Your task to perform on an android device: Clear the shopping cart on newegg.com. Search for "alienware area 51" on newegg.com, select the first entry, and add it to the cart. Image 0: 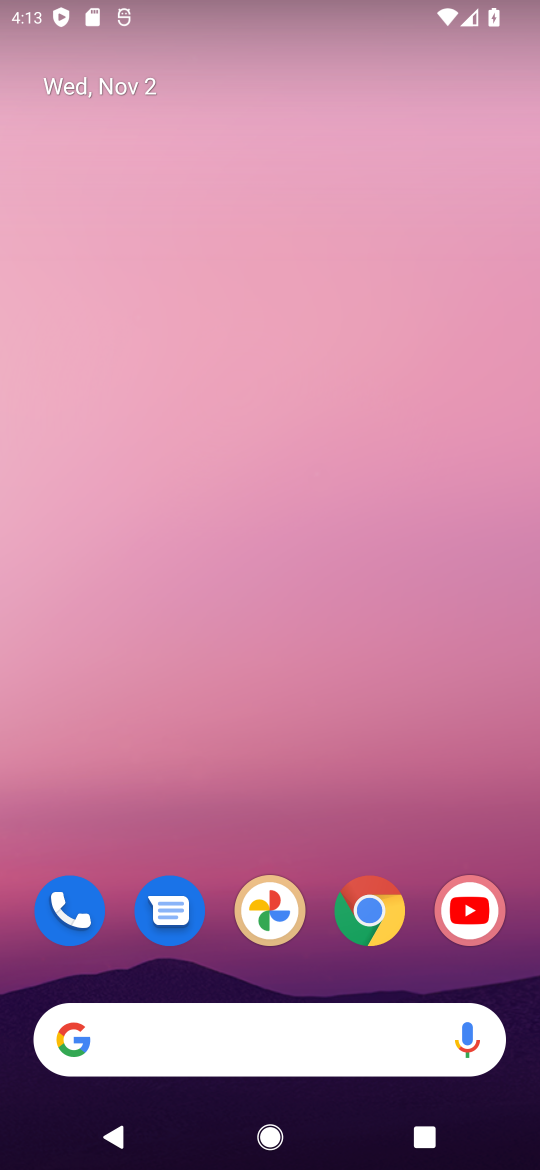
Step 0: click (374, 911)
Your task to perform on an android device: Clear the shopping cart on newegg.com. Search for "alienware area 51" on newegg.com, select the first entry, and add it to the cart. Image 1: 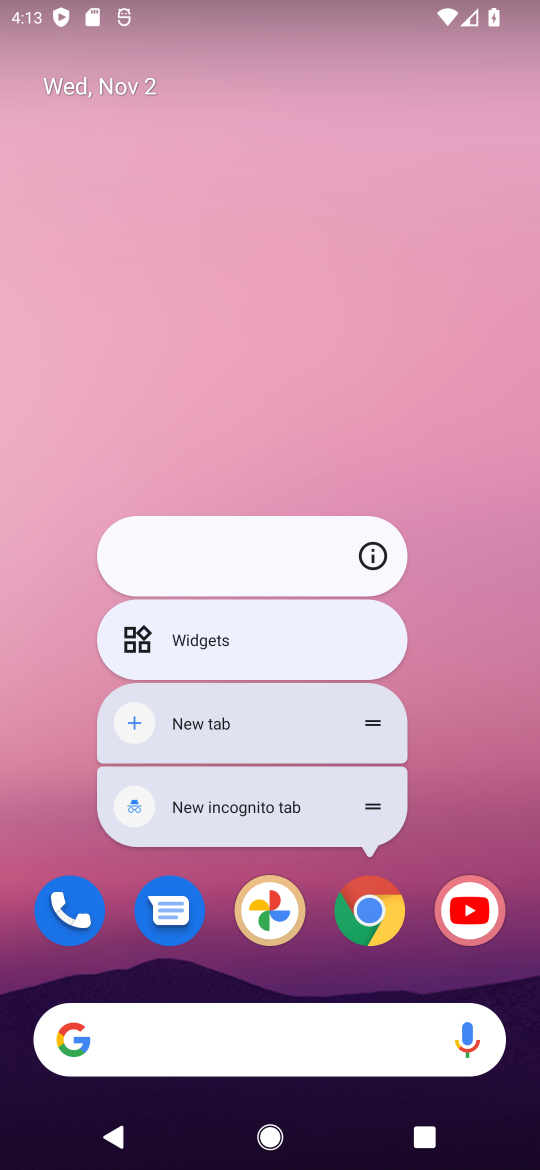
Step 1: click (371, 916)
Your task to perform on an android device: Clear the shopping cart on newegg.com. Search for "alienware area 51" on newegg.com, select the first entry, and add it to the cart. Image 2: 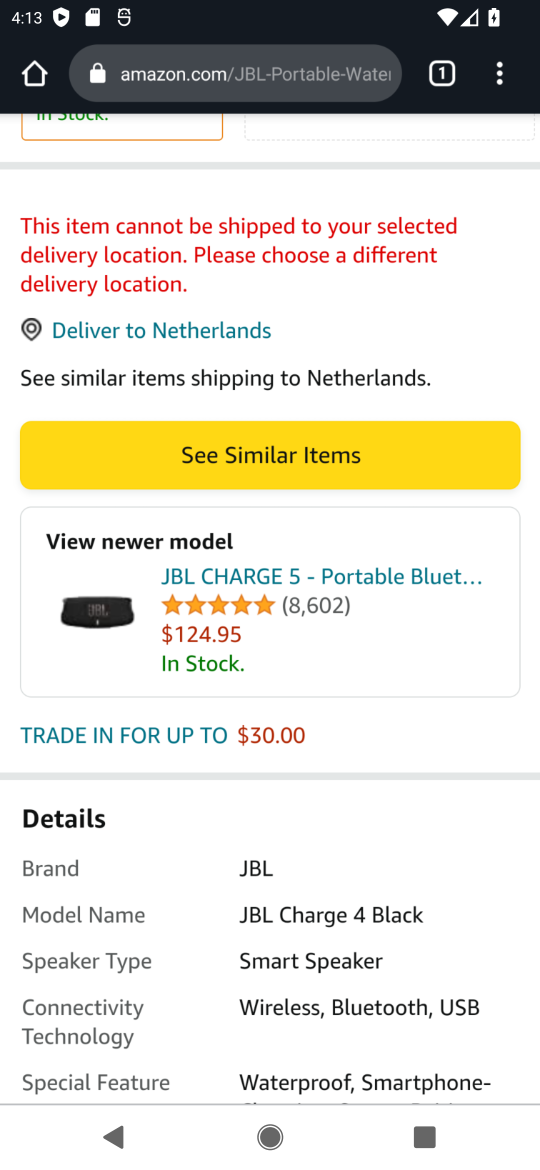
Step 2: click (214, 80)
Your task to perform on an android device: Clear the shopping cart on newegg.com. Search for "alienware area 51" on newegg.com, select the first entry, and add it to the cart. Image 3: 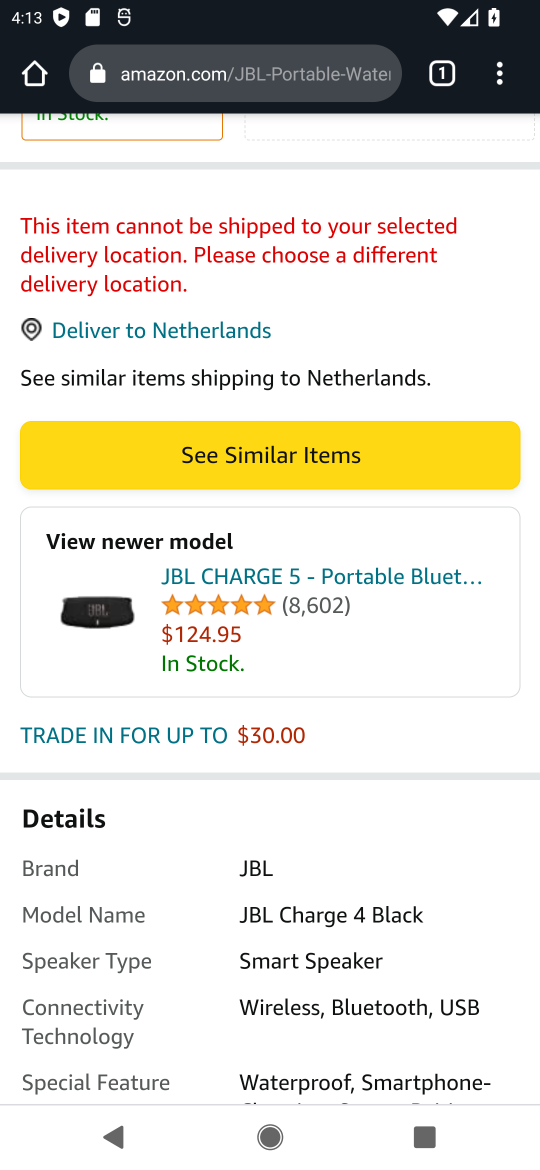
Step 3: click (262, 62)
Your task to perform on an android device: Clear the shopping cart on newegg.com. Search for "alienware area 51" on newegg.com, select the first entry, and add it to the cart. Image 4: 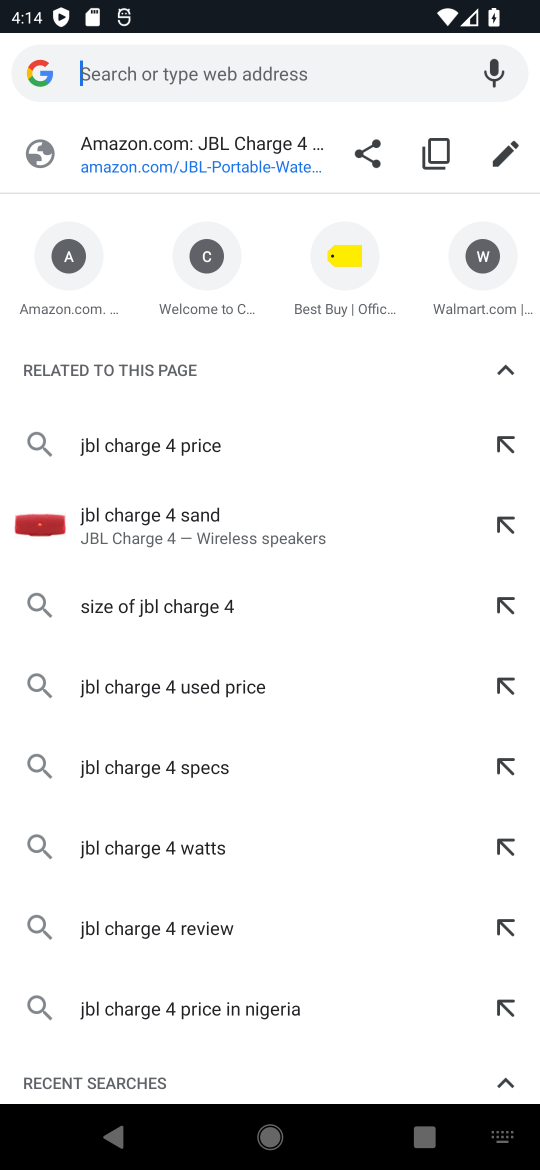
Step 4: type "newegg.com"
Your task to perform on an android device: Clear the shopping cart on newegg.com. Search for "alienware area 51" on newegg.com, select the first entry, and add it to the cart. Image 5: 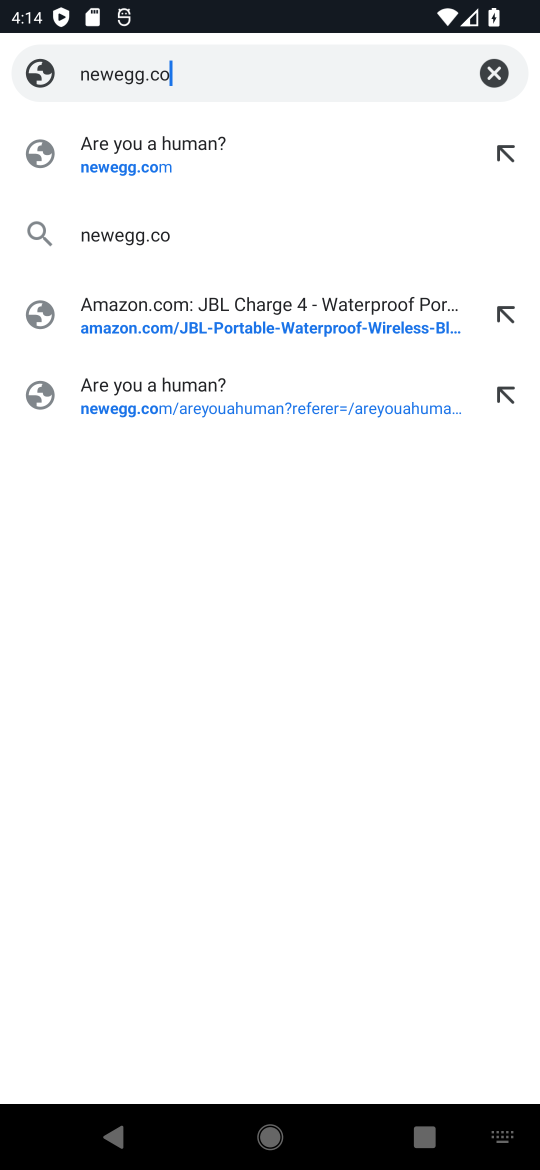
Step 5: type ""
Your task to perform on an android device: Clear the shopping cart on newegg.com. Search for "alienware area 51" on newegg.com, select the first entry, and add it to the cart. Image 6: 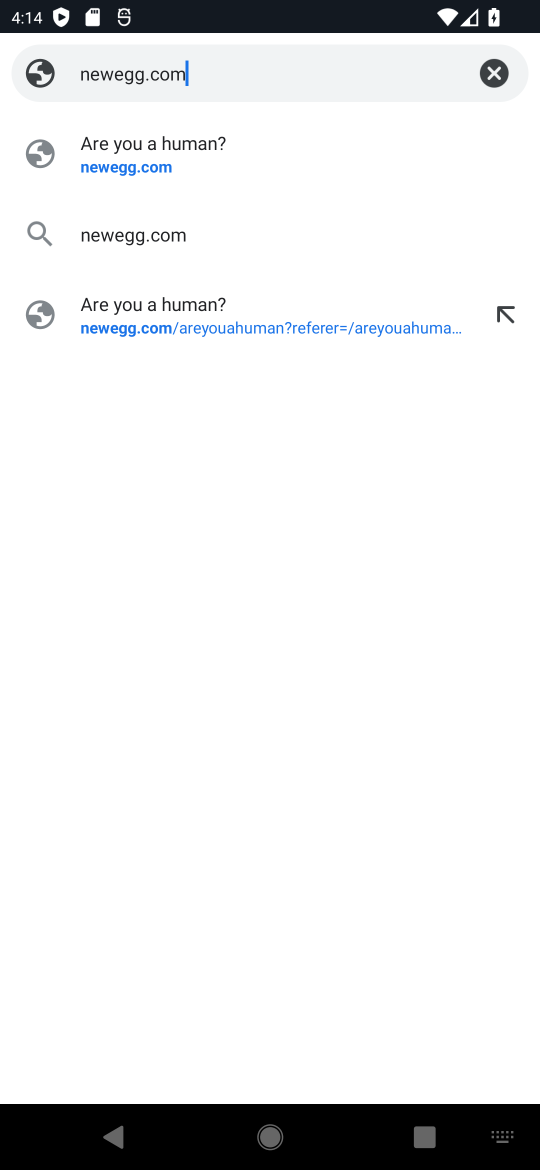
Step 6: click (132, 314)
Your task to perform on an android device: Clear the shopping cart on newegg.com. Search for "alienware area 51" on newegg.com, select the first entry, and add it to the cart. Image 7: 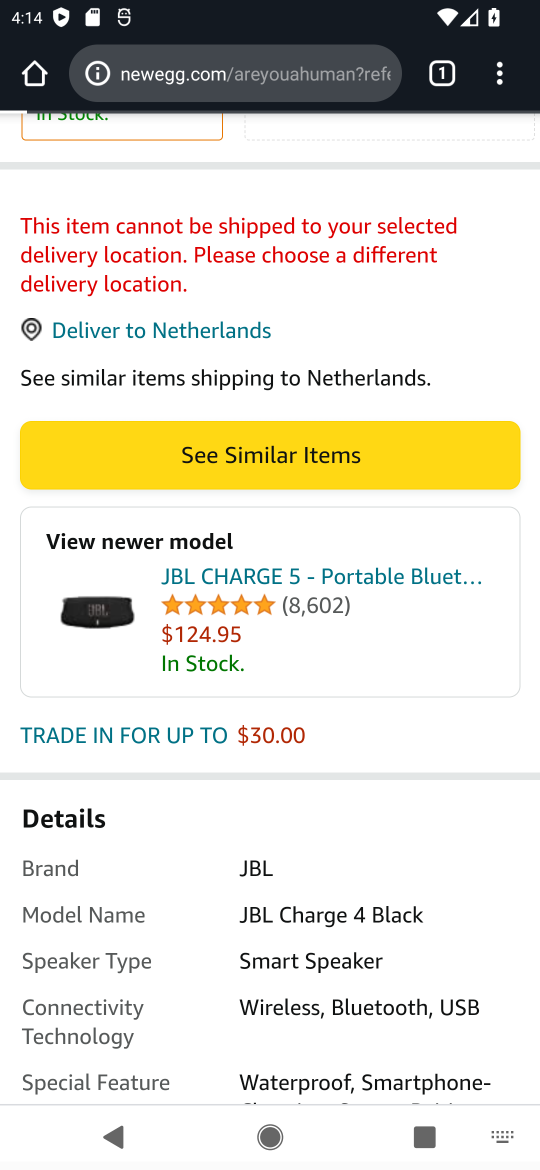
Step 7: click (145, 145)
Your task to perform on an android device: Clear the shopping cart on newegg.com. Search for "alienware area 51" on newegg.com, select the first entry, and add it to the cart. Image 8: 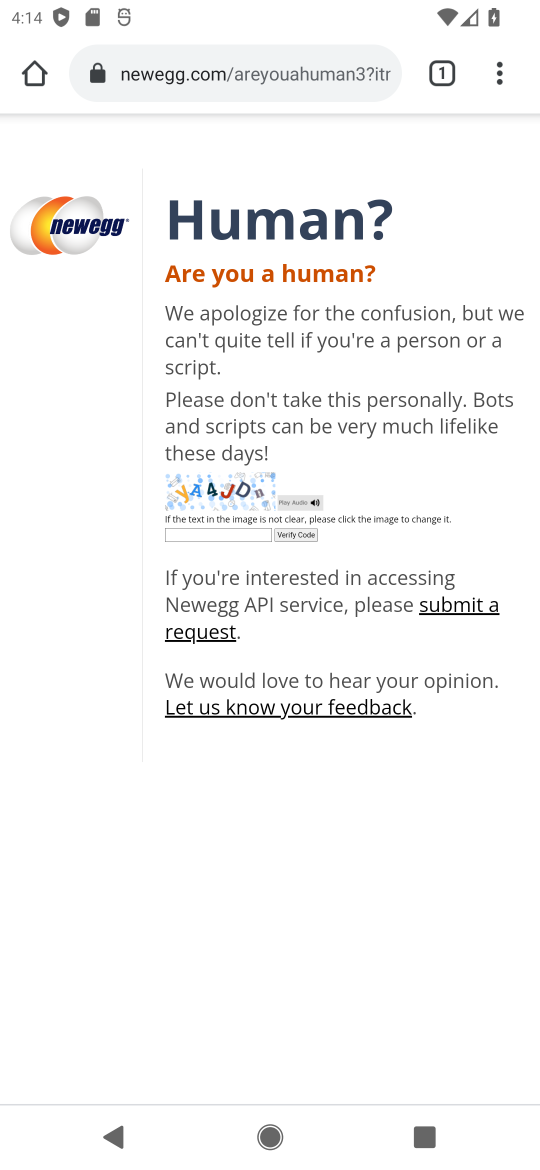
Step 8: click (223, 521)
Your task to perform on an android device: Clear the shopping cart on newegg.com. Search for "alienware area 51" on newegg.com, select the first entry, and add it to the cart. Image 9: 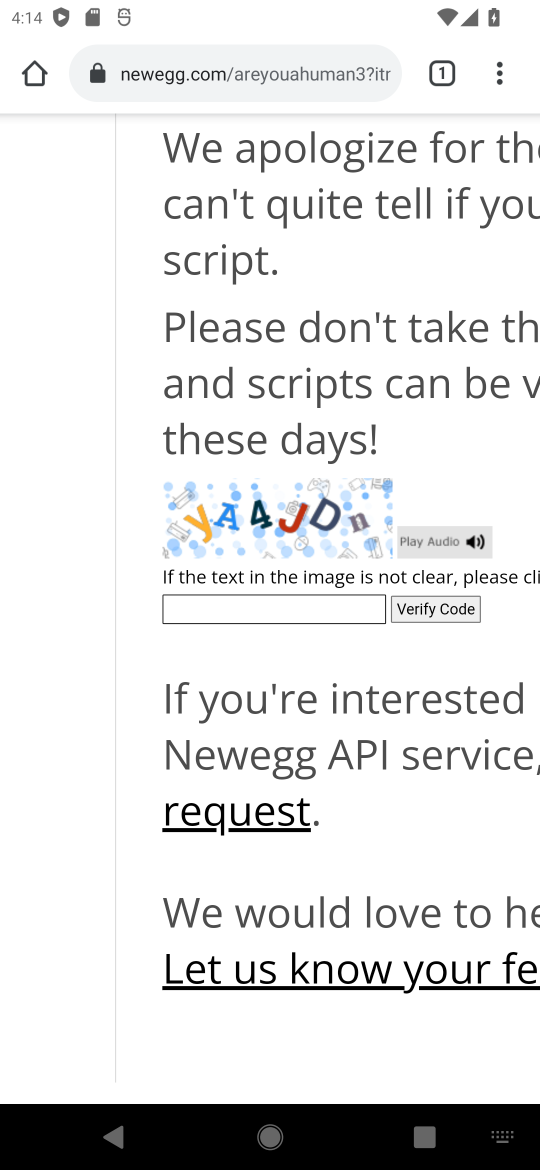
Step 9: type "yA4JDn"
Your task to perform on an android device: Clear the shopping cart on newegg.com. Search for "alienware area 51" on newegg.com, select the first entry, and add it to the cart. Image 10: 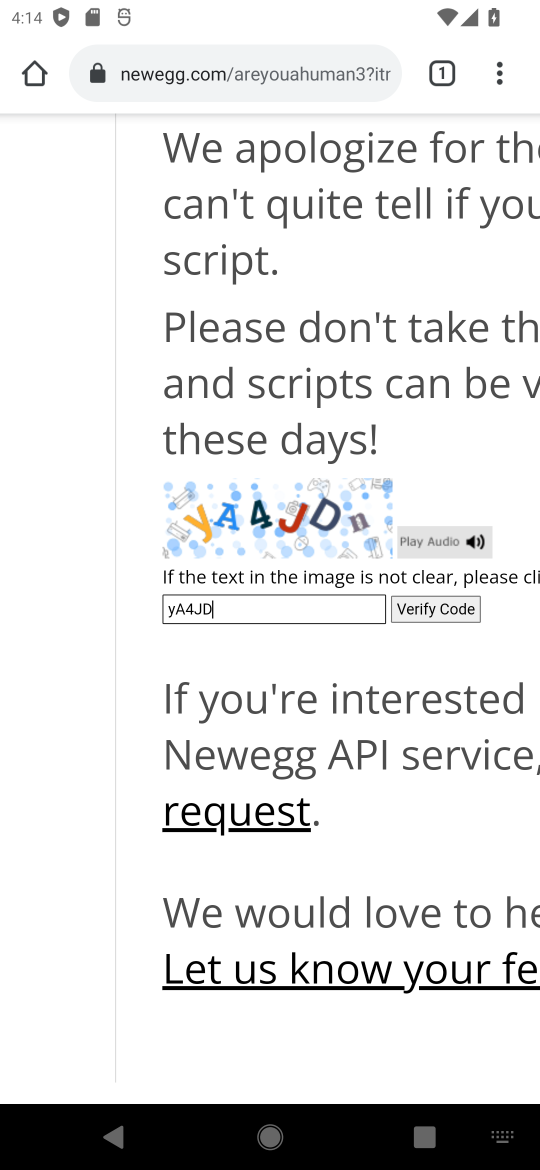
Step 10: type ""
Your task to perform on an android device: Clear the shopping cart on newegg.com. Search for "alienware area 51" on newegg.com, select the first entry, and add it to the cart. Image 11: 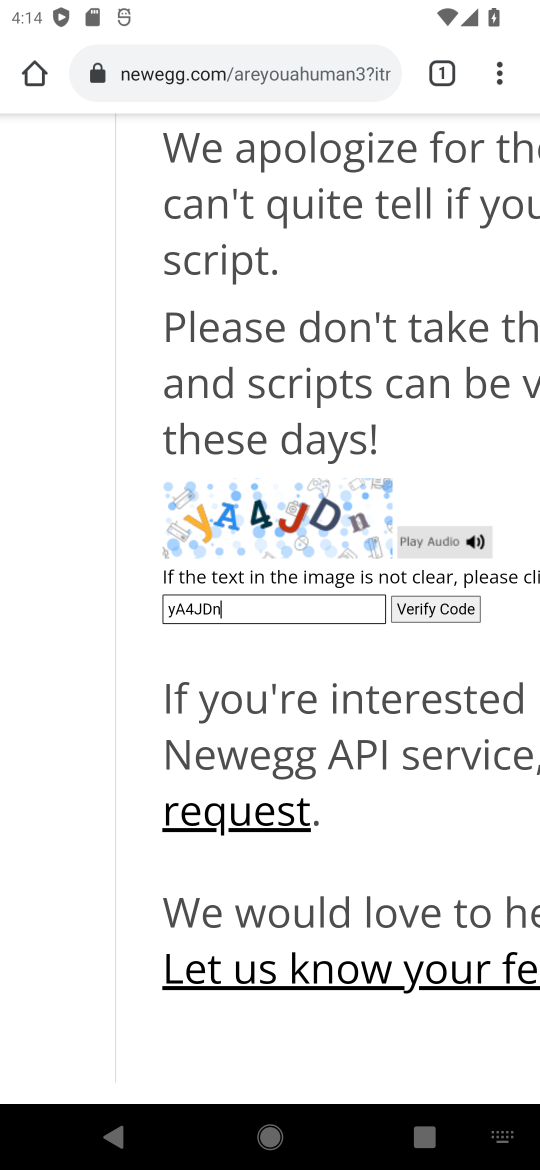
Step 11: click (484, 620)
Your task to perform on an android device: Clear the shopping cart on newegg.com. Search for "alienware area 51" on newegg.com, select the first entry, and add it to the cart. Image 12: 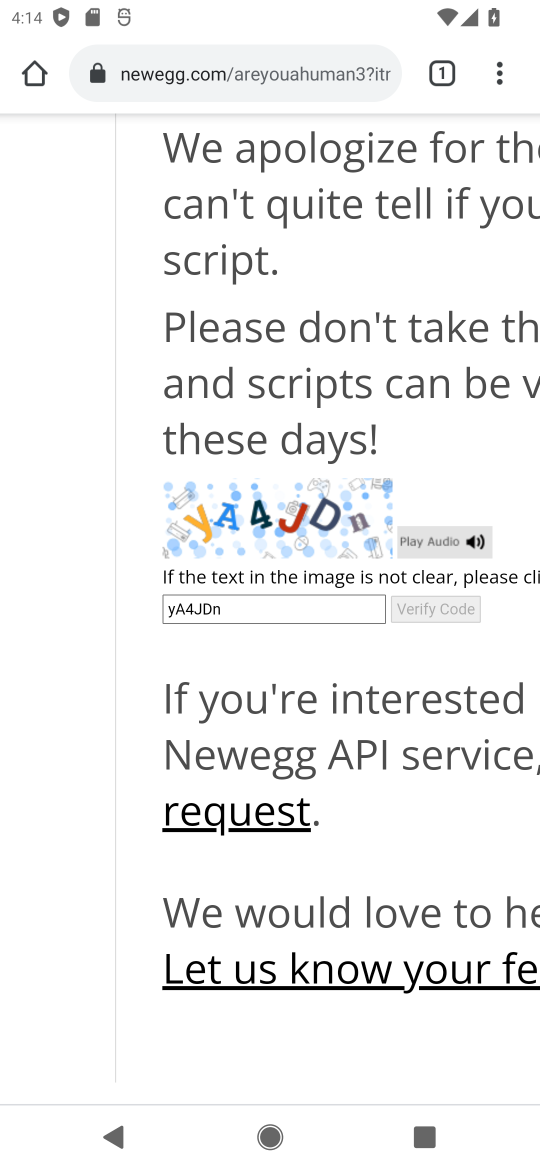
Step 12: click (478, 612)
Your task to perform on an android device: Clear the shopping cart on newegg.com. Search for "alienware area 51" on newegg.com, select the first entry, and add it to the cart. Image 13: 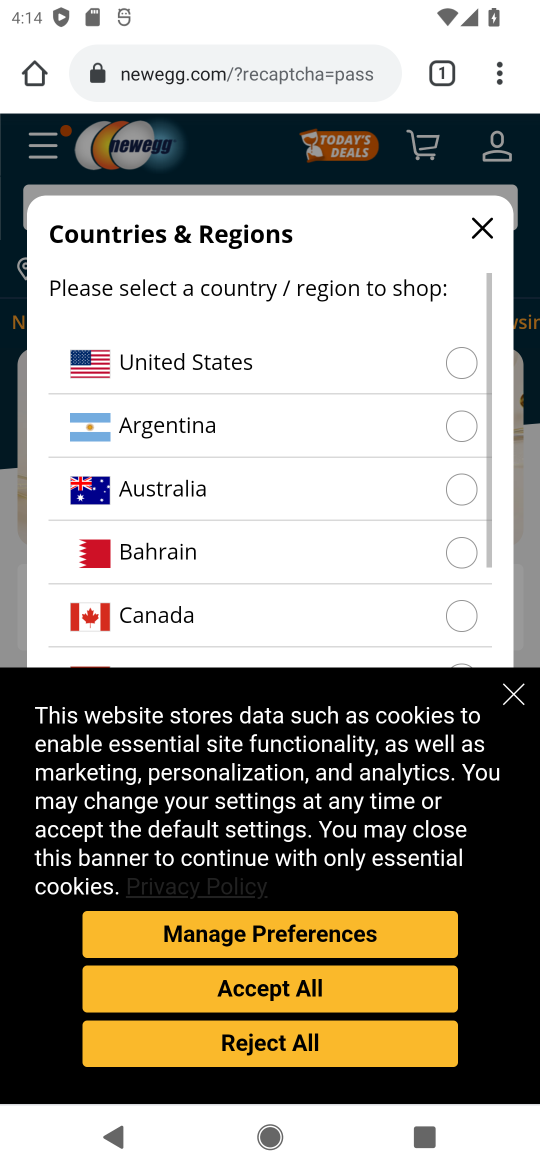
Step 13: click (463, 359)
Your task to perform on an android device: Clear the shopping cart on newegg.com. Search for "alienware area 51" on newegg.com, select the first entry, and add it to the cart. Image 14: 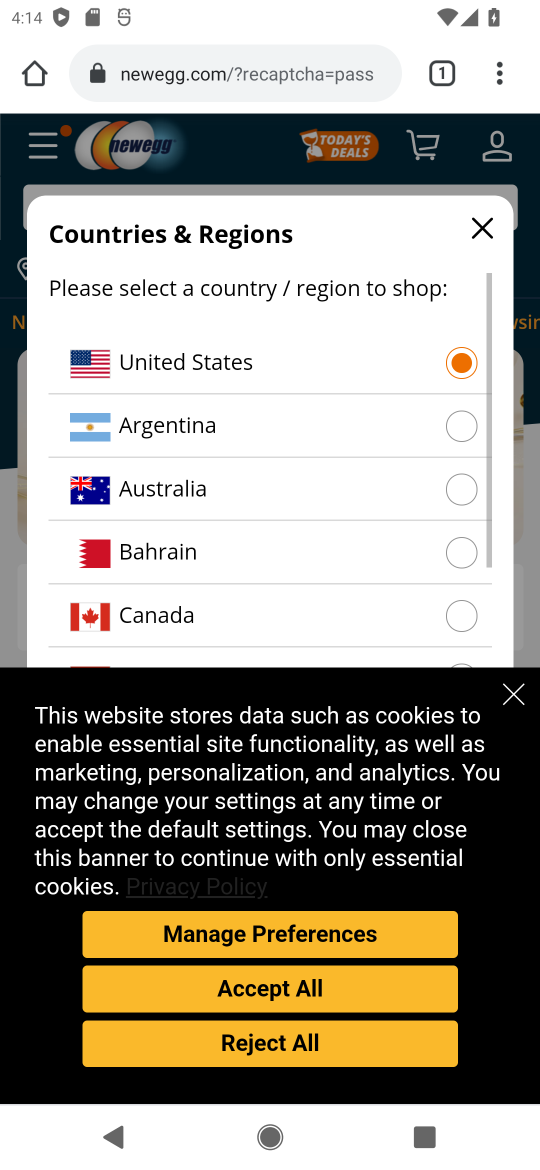
Step 14: click (280, 1050)
Your task to perform on an android device: Clear the shopping cart on newegg.com. Search for "alienware area 51" on newegg.com, select the first entry, and add it to the cart. Image 15: 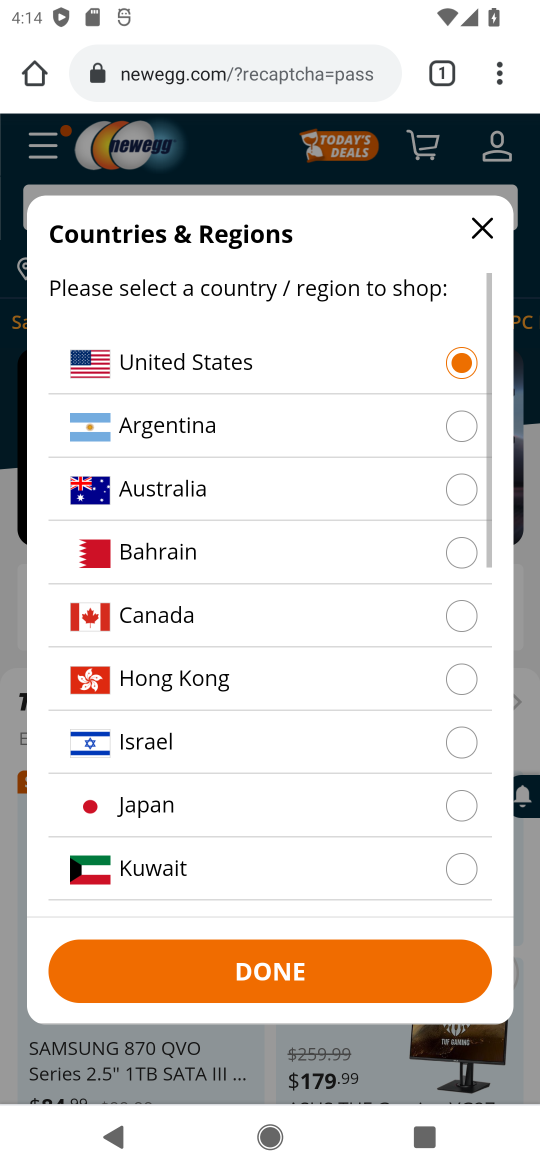
Step 15: click (318, 989)
Your task to perform on an android device: Clear the shopping cart on newegg.com. Search for "alienware area 51" on newegg.com, select the first entry, and add it to the cart. Image 16: 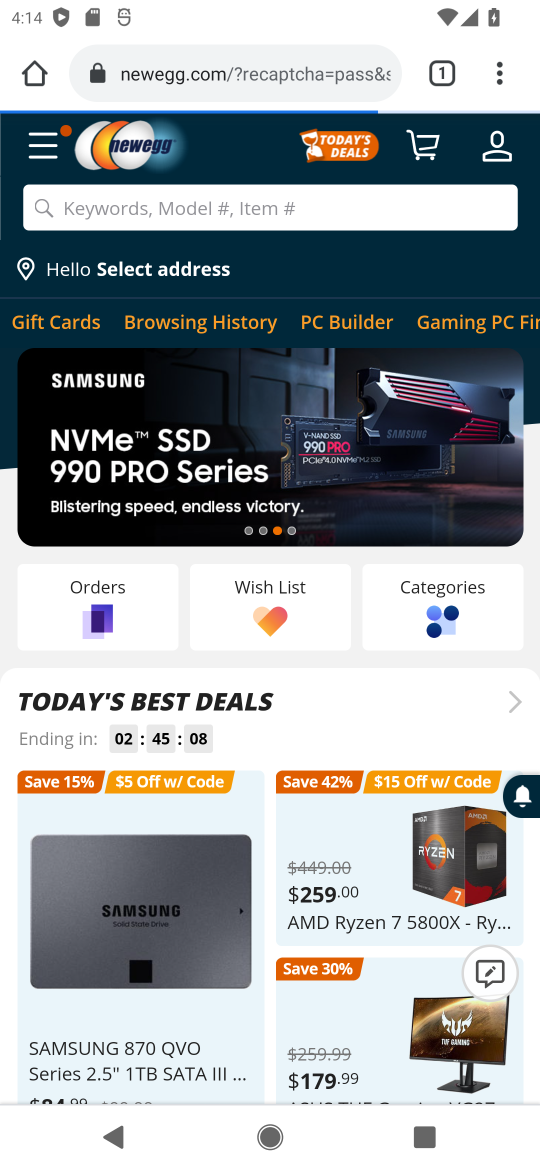
Step 16: click (199, 214)
Your task to perform on an android device: Clear the shopping cart on newegg.com. Search for "alienware area 51" on newegg.com, select the first entry, and add it to the cart. Image 17: 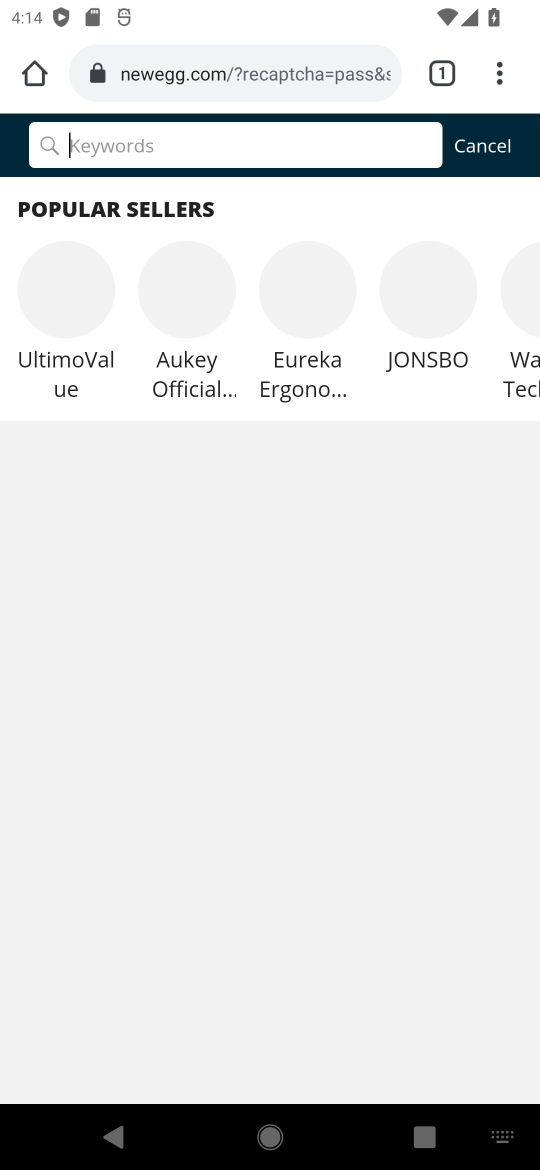
Step 17: type "alienware area 51"
Your task to perform on an android device: Clear the shopping cart on newegg.com. Search for "alienware area 51" on newegg.com, select the first entry, and add it to the cart. Image 18: 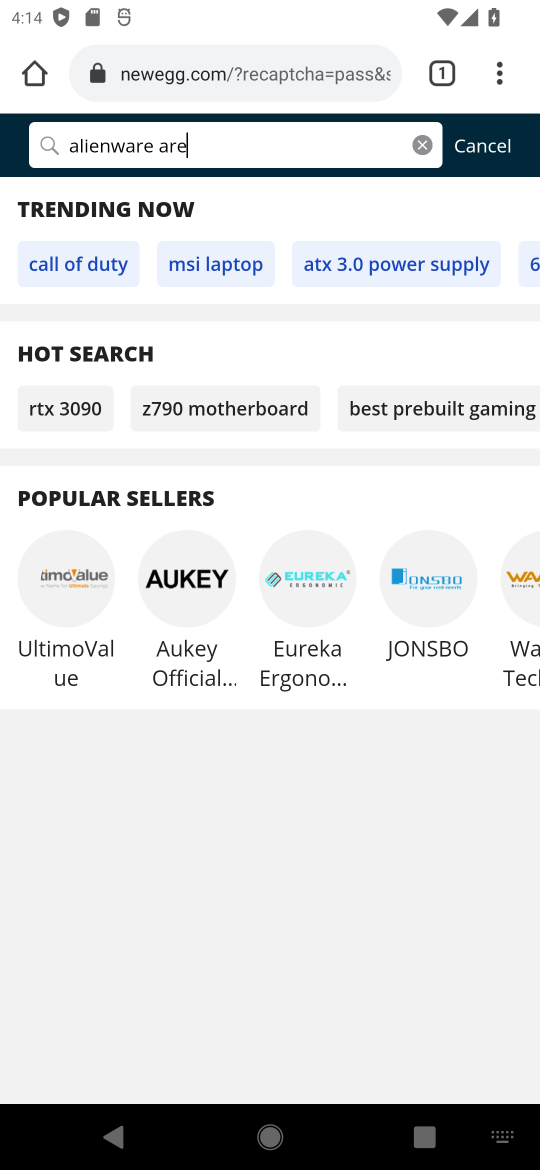
Step 18: type ""
Your task to perform on an android device: Clear the shopping cart on newegg.com. Search for "alienware area 51" on newegg.com, select the first entry, and add it to the cart. Image 19: 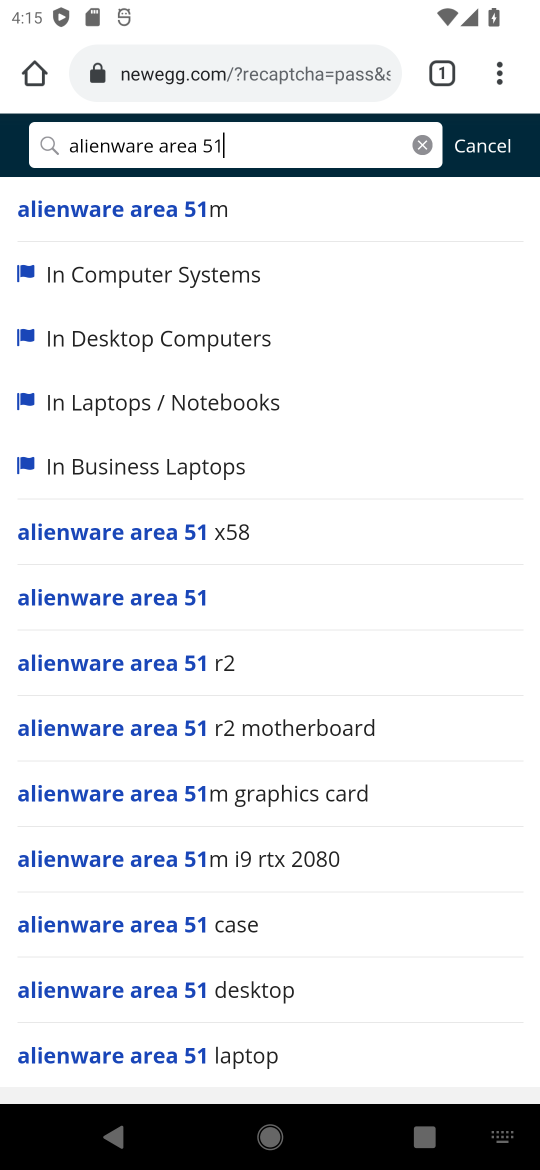
Step 19: click (226, 229)
Your task to perform on an android device: Clear the shopping cart on newegg.com. Search for "alienware area 51" on newegg.com, select the first entry, and add it to the cart. Image 20: 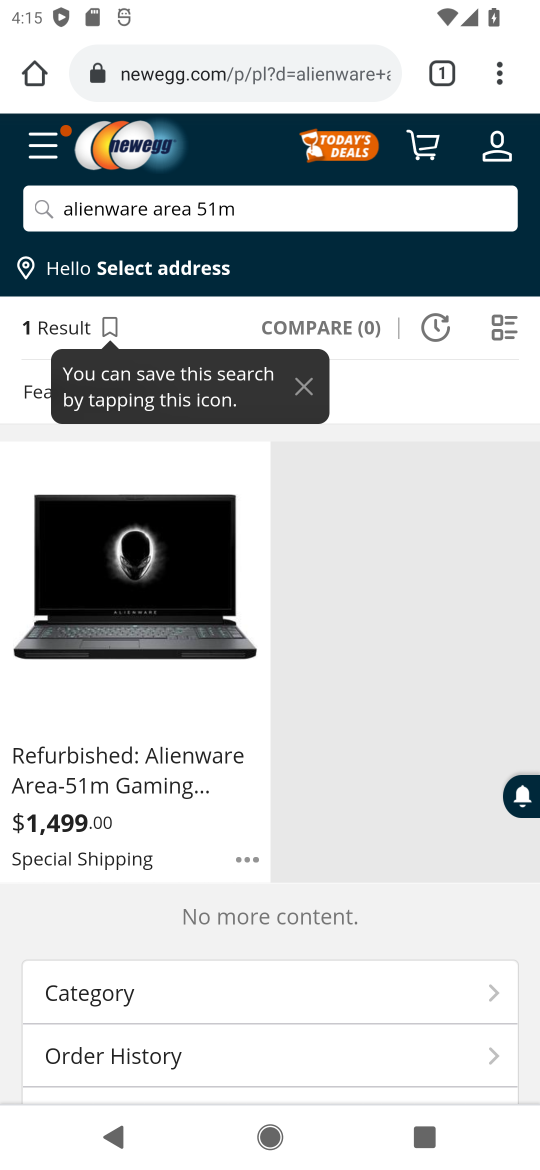
Step 20: click (91, 766)
Your task to perform on an android device: Clear the shopping cart on newegg.com. Search for "alienware area 51" on newegg.com, select the first entry, and add it to the cart. Image 21: 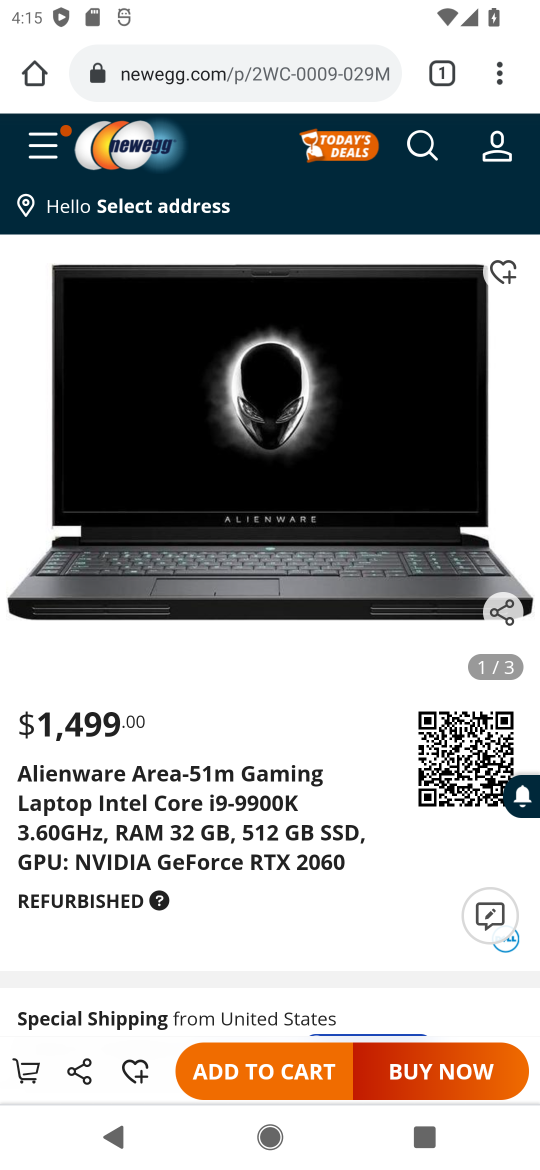
Step 21: click (264, 1073)
Your task to perform on an android device: Clear the shopping cart on newegg.com. Search for "alienware area 51" on newegg.com, select the first entry, and add it to the cart. Image 22: 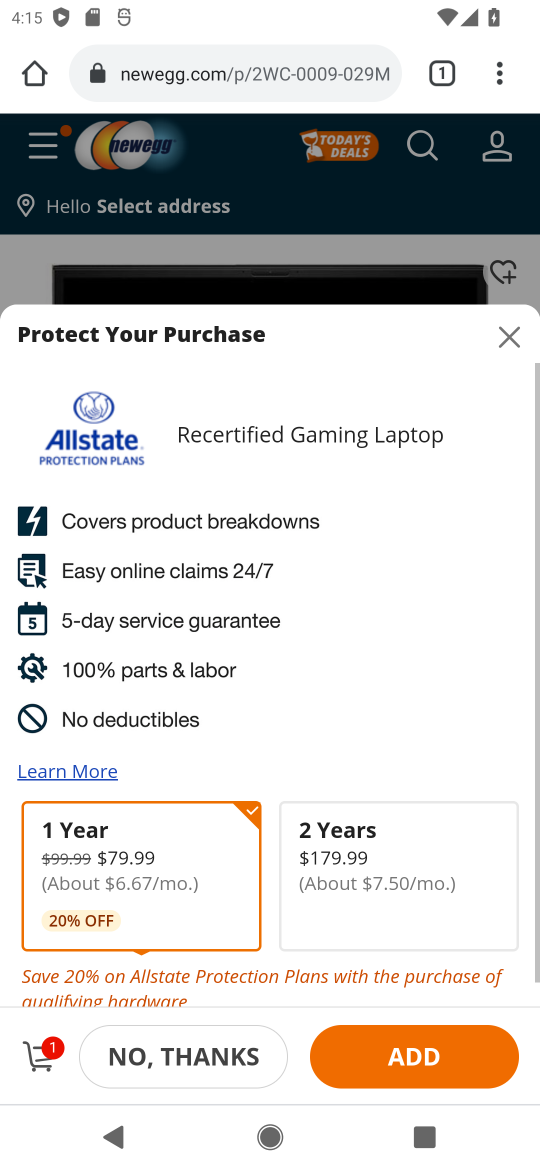
Step 22: click (447, 1072)
Your task to perform on an android device: Clear the shopping cart on newegg.com. Search for "alienware area 51" on newegg.com, select the first entry, and add it to the cart. Image 23: 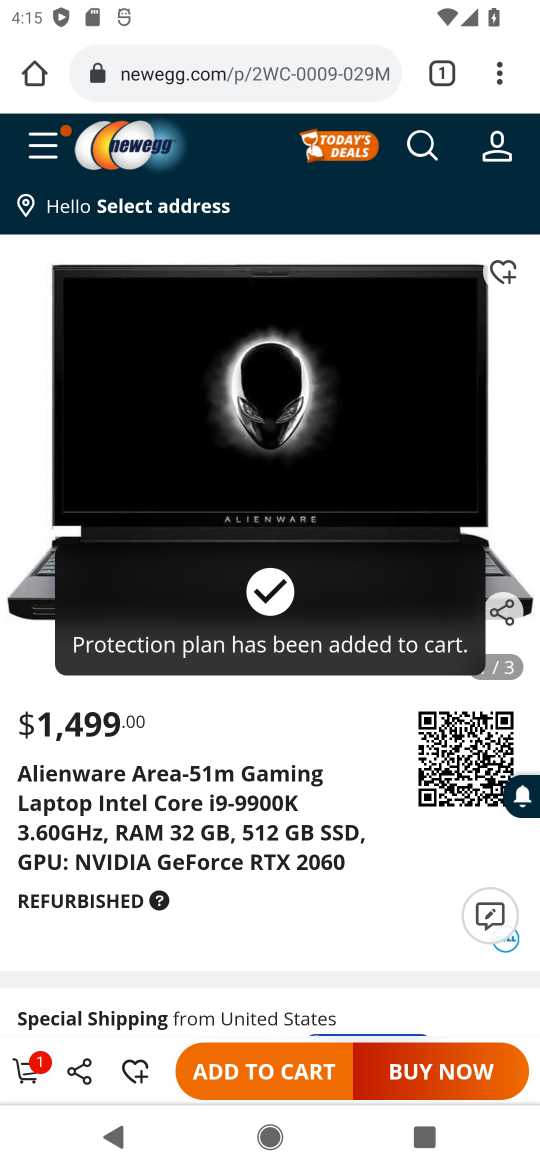
Step 23: click (37, 1064)
Your task to perform on an android device: Clear the shopping cart on newegg.com. Search for "alienware area 51" on newegg.com, select the first entry, and add it to the cart. Image 24: 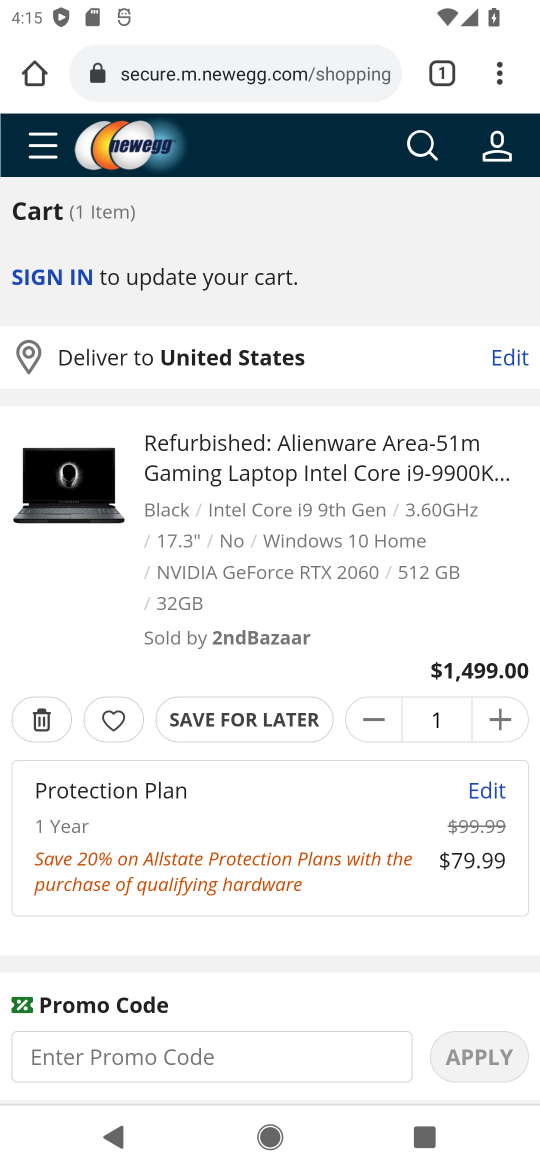
Step 24: click (126, 1048)
Your task to perform on an android device: Clear the shopping cart on newegg.com. Search for "alienware area 51" on newegg.com, select the first entry, and add it to the cart. Image 25: 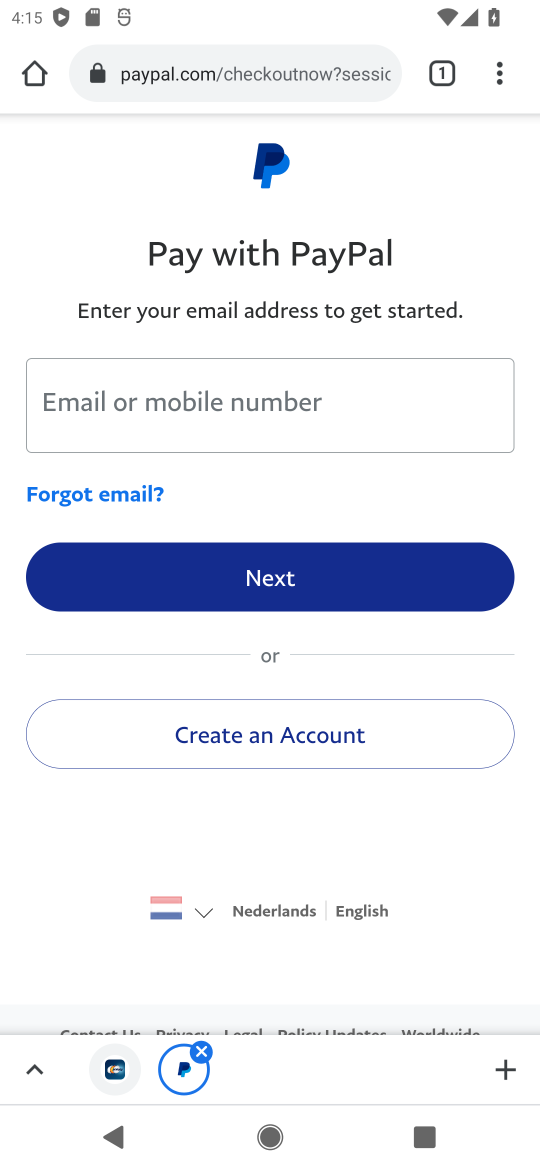
Step 25: click (194, 1058)
Your task to perform on an android device: Clear the shopping cart on newegg.com. Search for "alienware area 51" on newegg.com, select the first entry, and add it to the cart. Image 26: 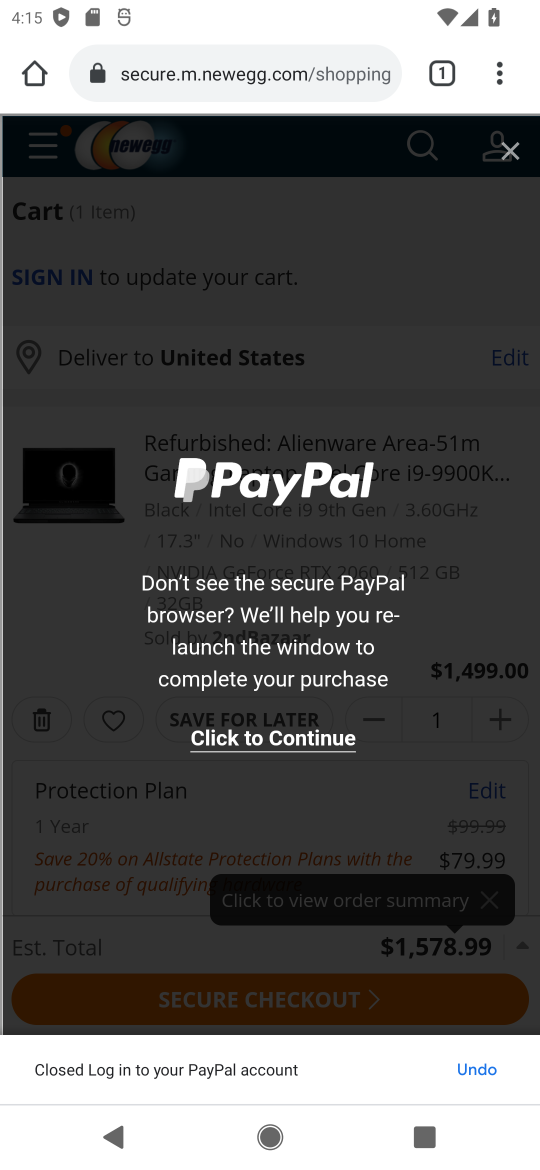
Step 26: click (439, 796)
Your task to perform on an android device: Clear the shopping cart on newegg.com. Search for "alienware area 51" on newegg.com, select the first entry, and add it to the cart. Image 27: 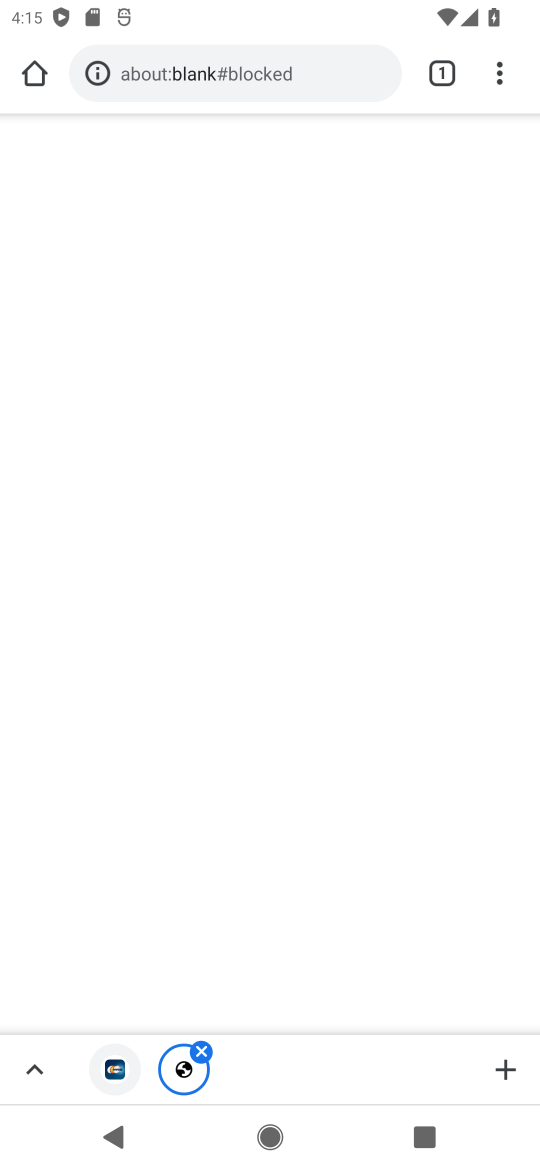
Step 27: click (524, 143)
Your task to perform on an android device: Clear the shopping cart on newegg.com. Search for "alienware area 51" on newegg.com, select the first entry, and add it to the cart. Image 28: 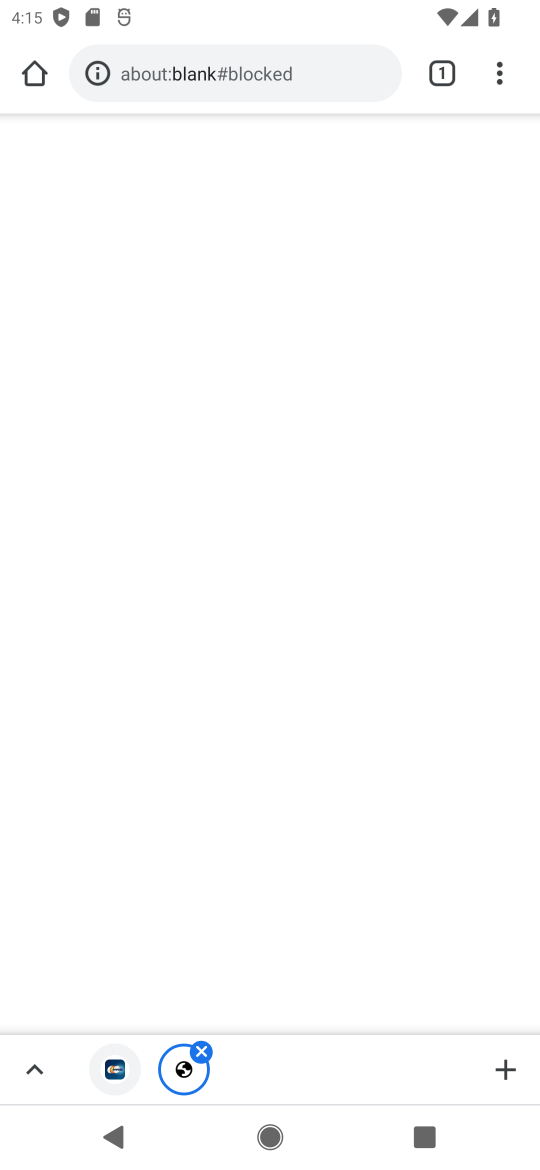
Step 28: click (198, 1051)
Your task to perform on an android device: Clear the shopping cart on newegg.com. Search for "alienware area 51" on newegg.com, select the first entry, and add it to the cart. Image 29: 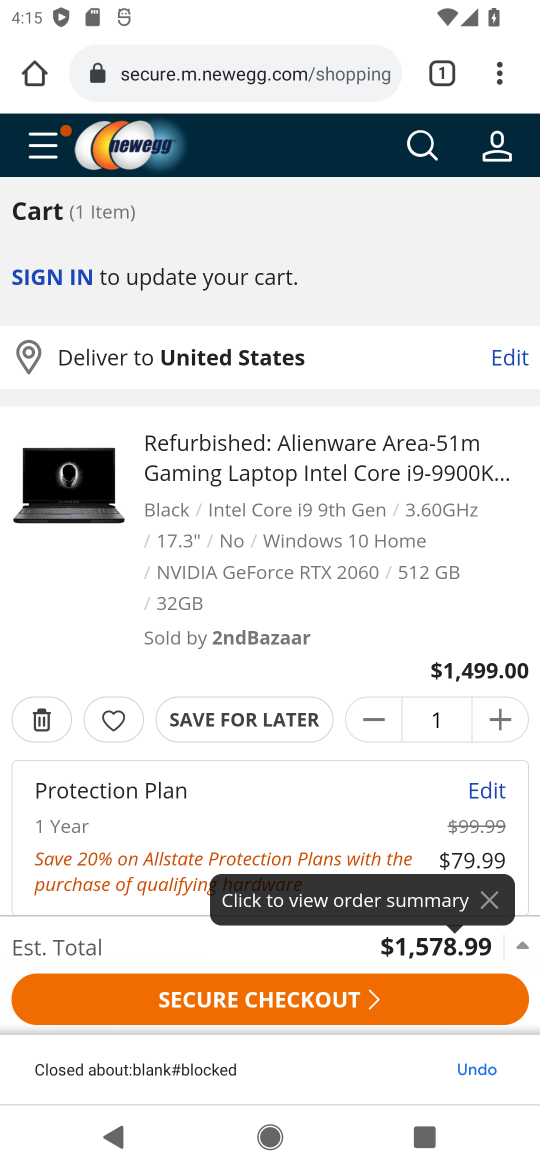
Step 29: task complete